Your task to perform on an android device: open app "Expedia: Hotels, Flights & Car" Image 0: 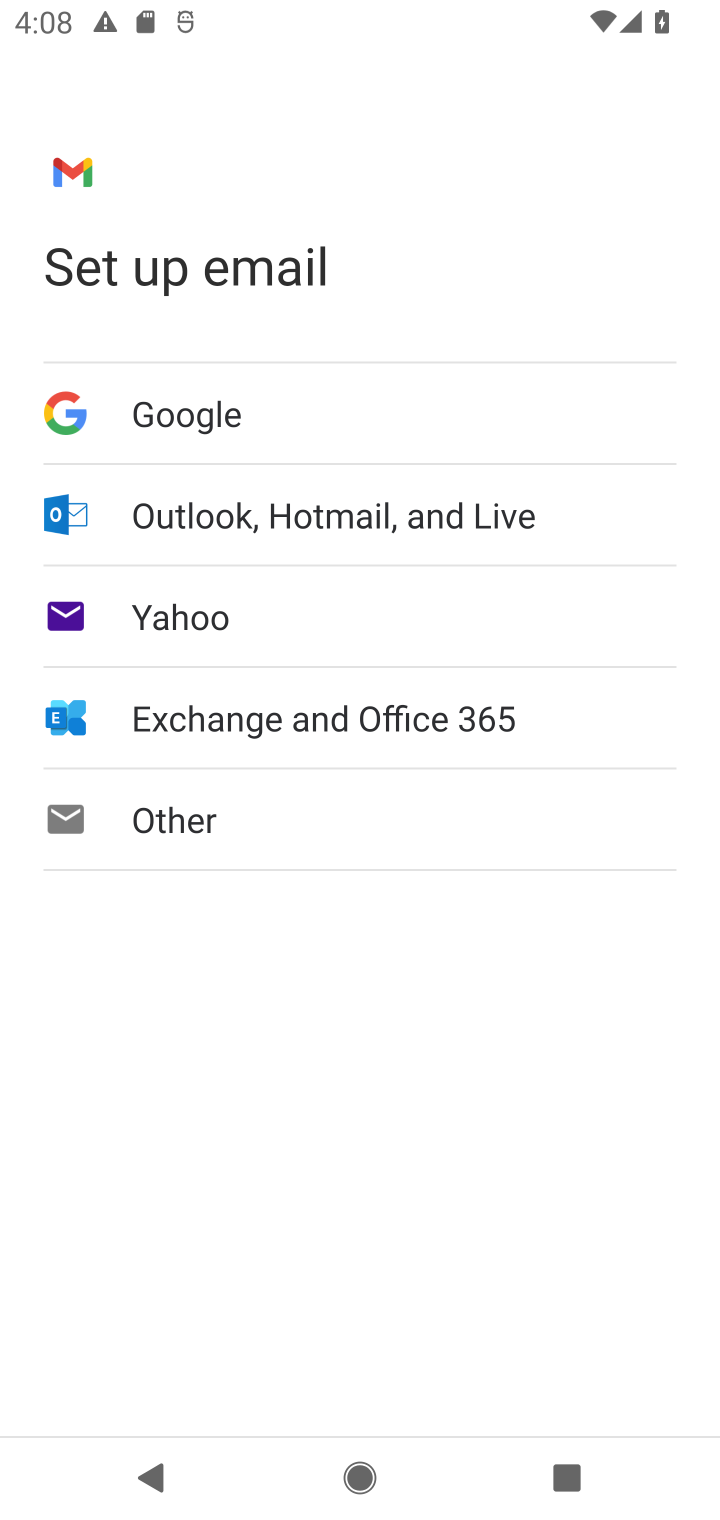
Step 0: press home button
Your task to perform on an android device: open app "Expedia: Hotels, Flights & Car" Image 1: 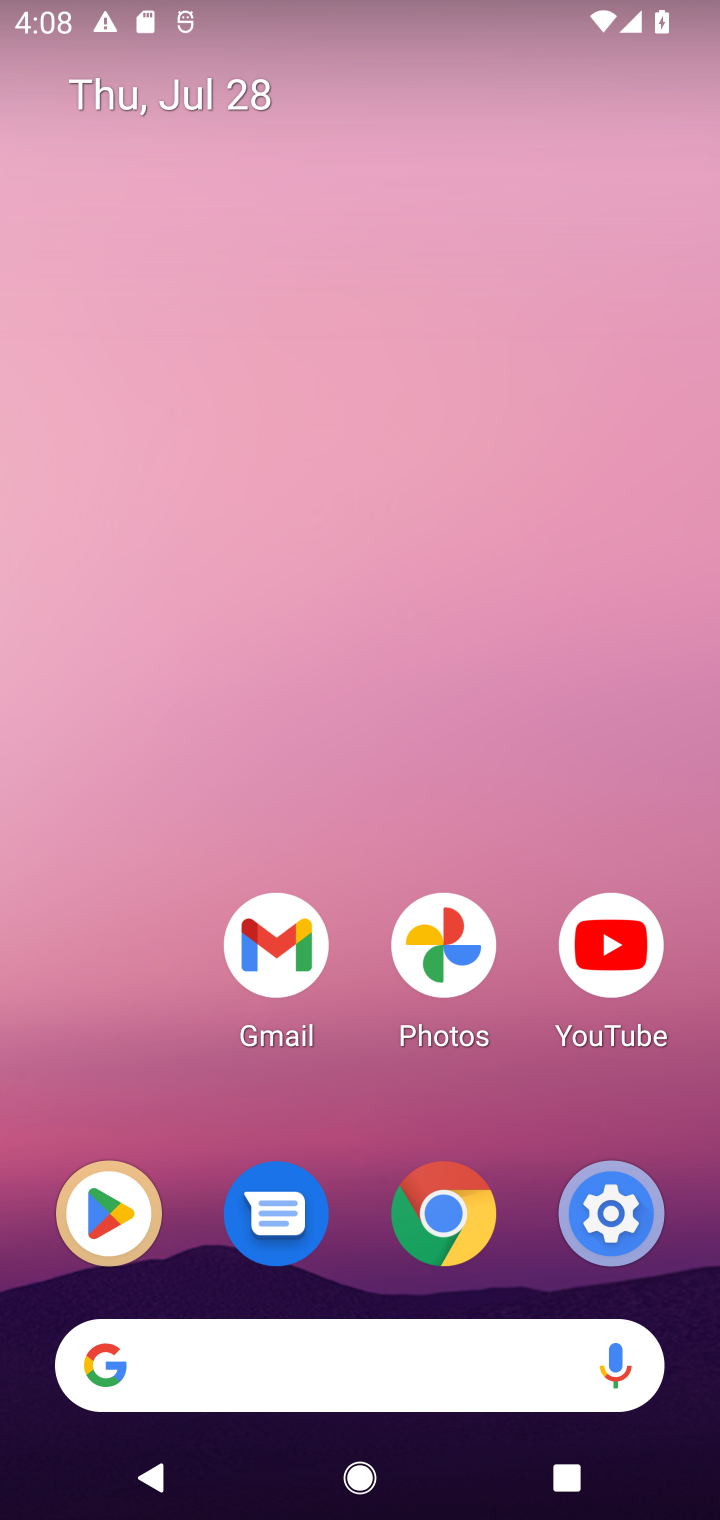
Step 1: drag from (67, 1026) to (148, 176)
Your task to perform on an android device: open app "Expedia: Hotels, Flights & Car" Image 2: 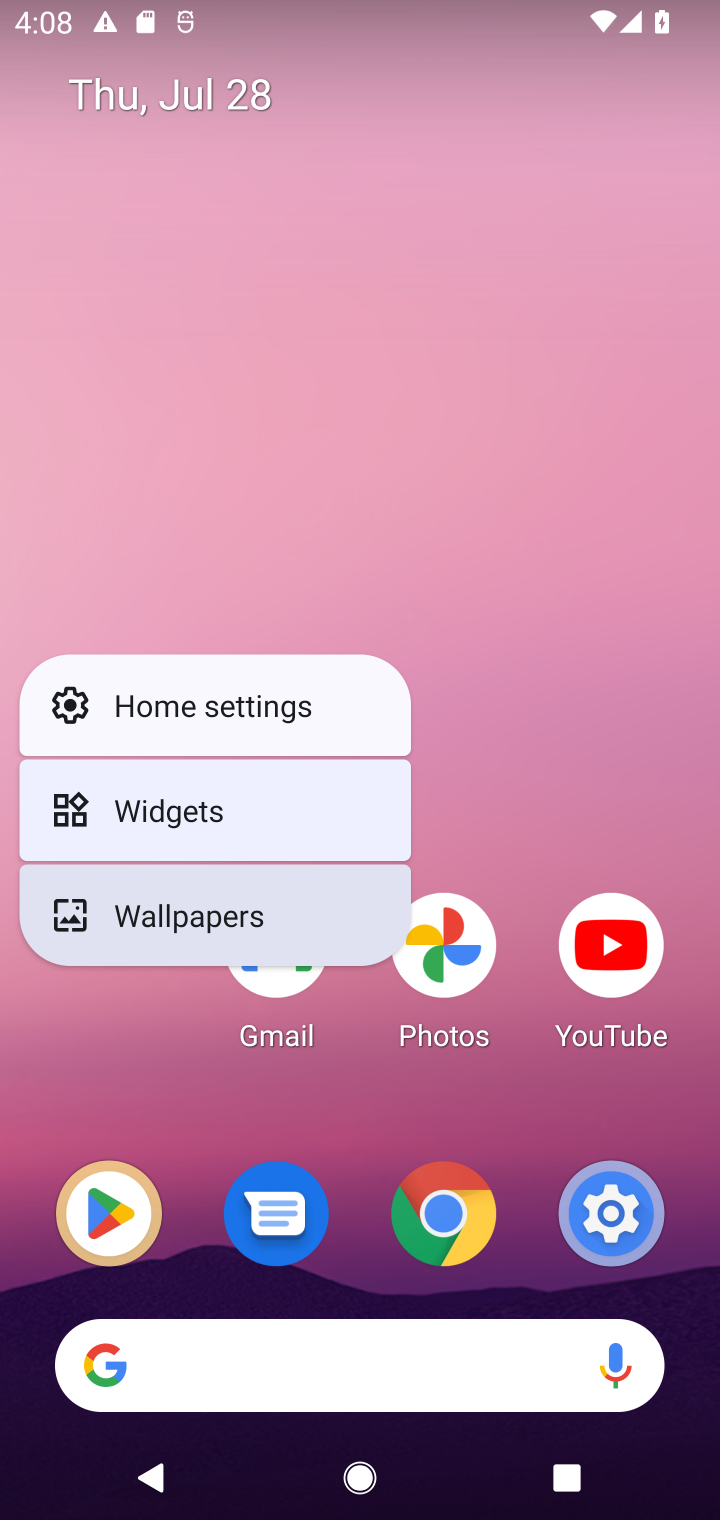
Step 2: click (598, 522)
Your task to perform on an android device: open app "Expedia: Hotels, Flights & Car" Image 3: 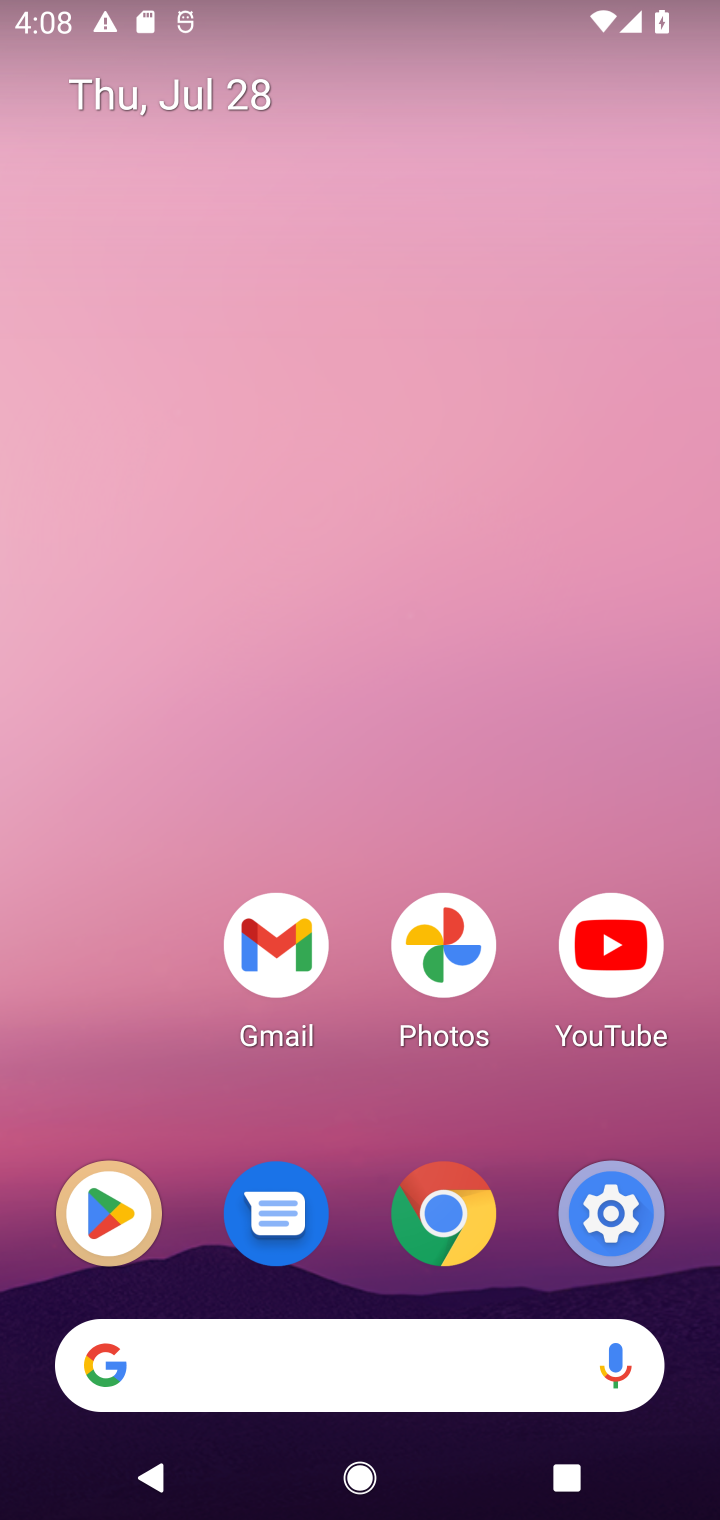
Step 3: drag from (105, 1009) to (143, 189)
Your task to perform on an android device: open app "Expedia: Hotels, Flights & Car" Image 4: 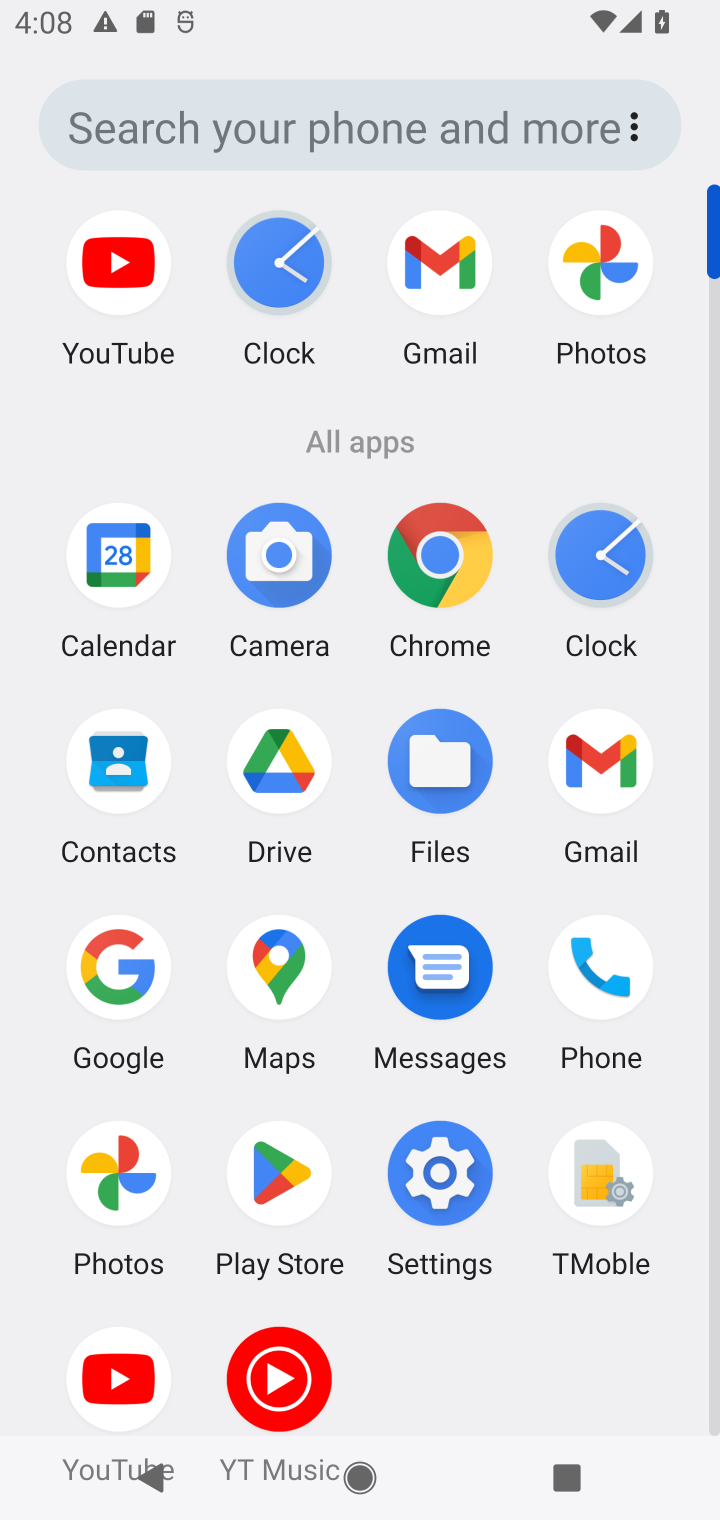
Step 4: click (296, 1177)
Your task to perform on an android device: open app "Expedia: Hotels, Flights & Car" Image 5: 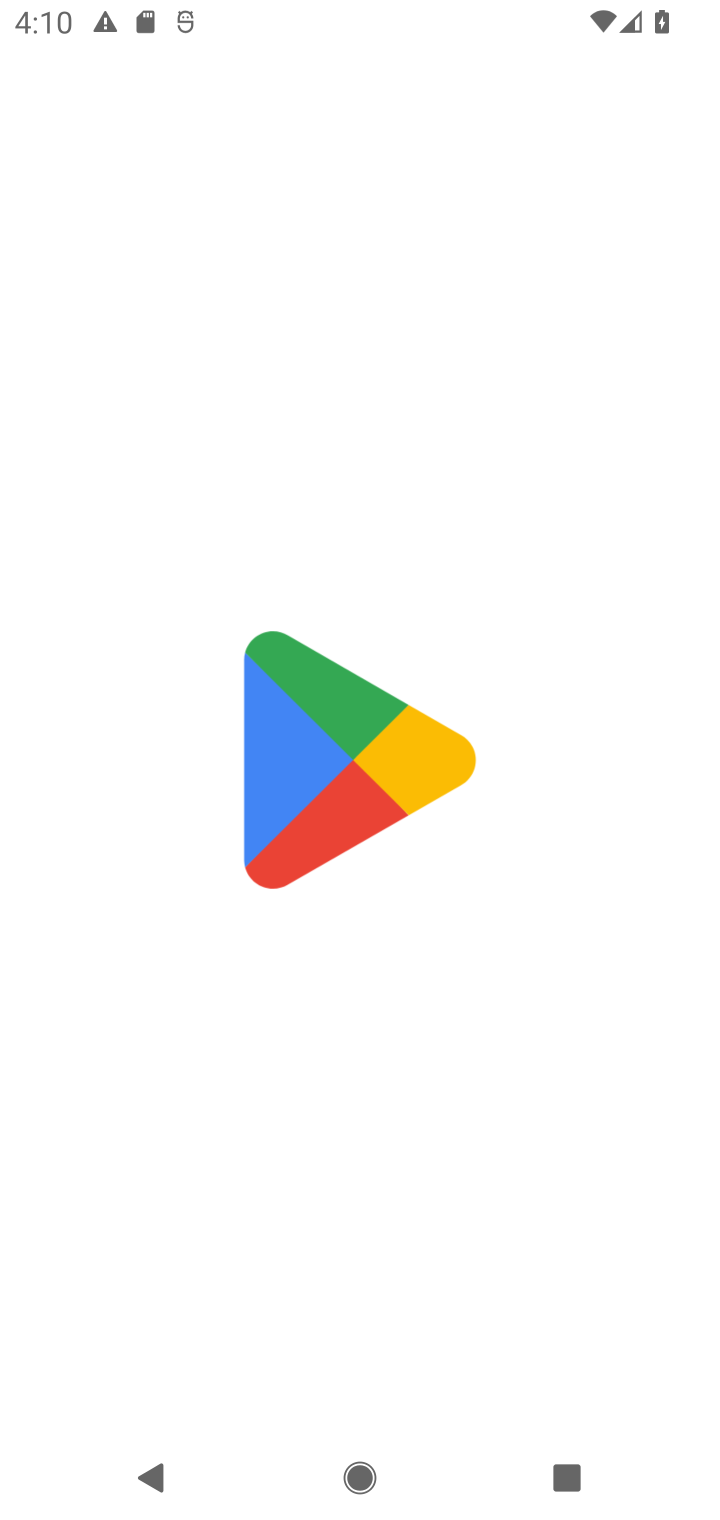
Step 5: task complete